Your task to perform on an android device: Search for seafood restaurants on Google Maps Image 0: 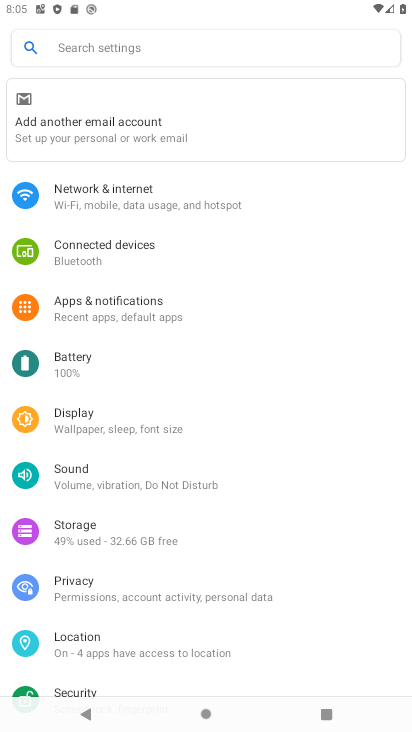
Step 0: press home button
Your task to perform on an android device: Search for seafood restaurants on Google Maps Image 1: 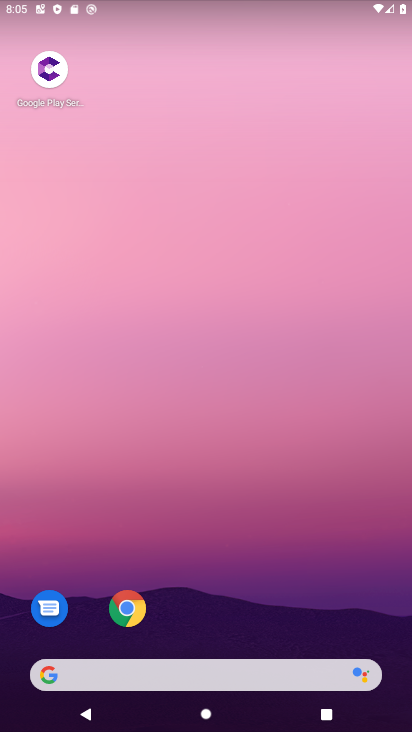
Step 1: drag from (146, 726) to (211, 149)
Your task to perform on an android device: Search for seafood restaurants on Google Maps Image 2: 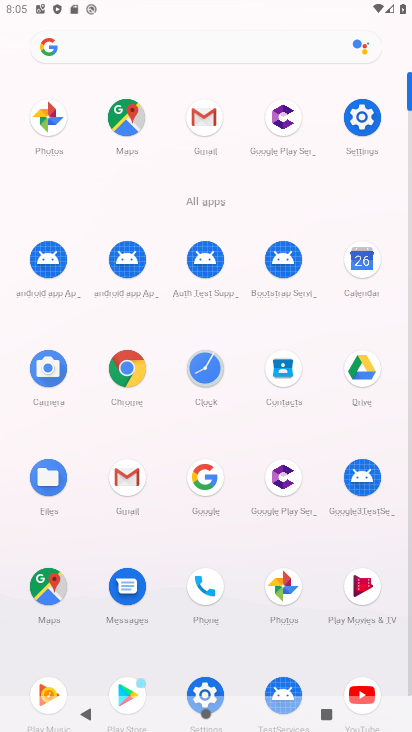
Step 2: click (125, 136)
Your task to perform on an android device: Search for seafood restaurants on Google Maps Image 3: 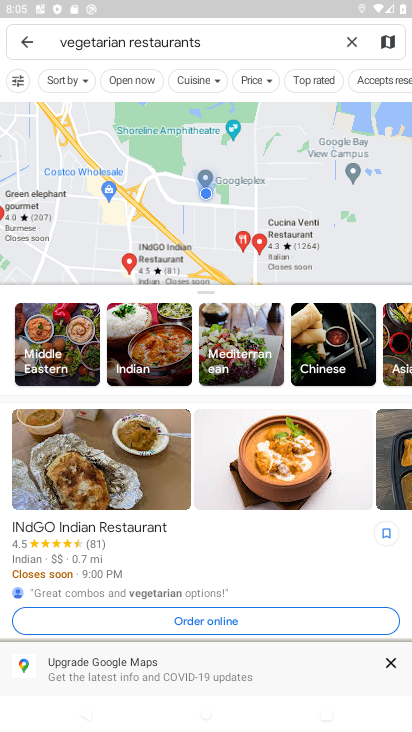
Step 3: click (351, 41)
Your task to perform on an android device: Search for seafood restaurants on Google Maps Image 4: 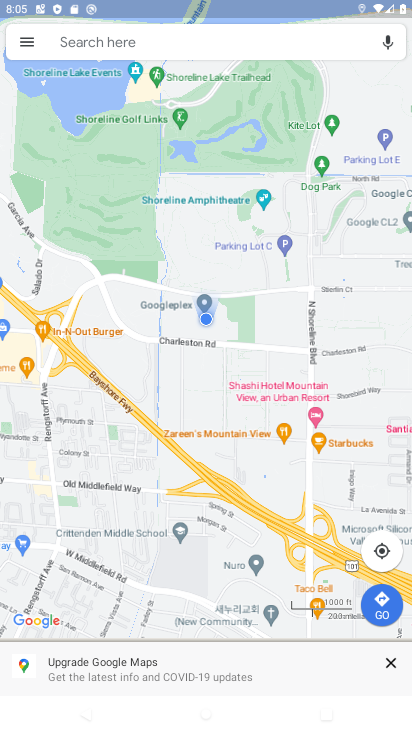
Step 4: click (280, 50)
Your task to perform on an android device: Search for seafood restaurants on Google Maps Image 5: 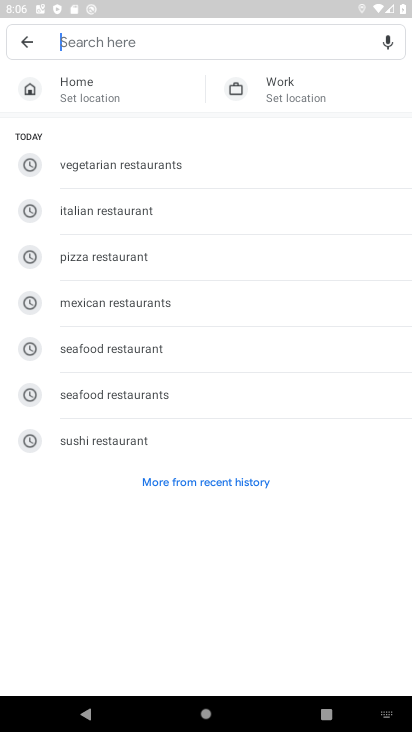
Step 5: click (131, 389)
Your task to perform on an android device: Search for seafood restaurants on Google Maps Image 6: 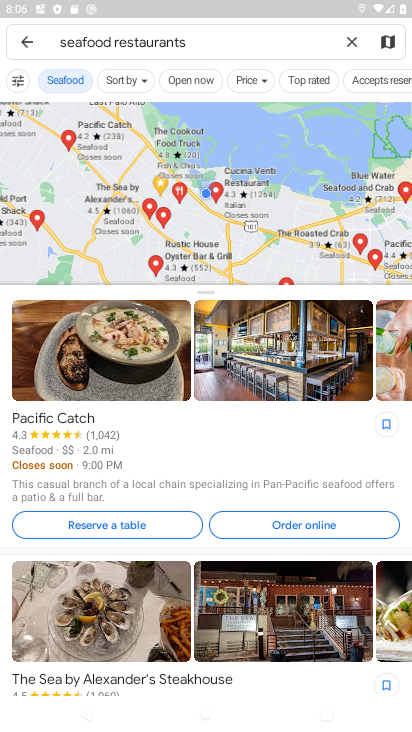
Step 6: task complete